Your task to perform on an android device: turn on bluetooth scan Image 0: 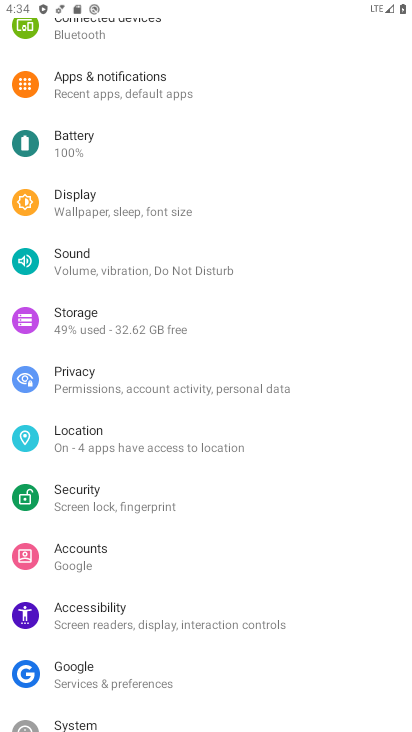
Step 0: drag from (245, 131) to (261, 530)
Your task to perform on an android device: turn on bluetooth scan Image 1: 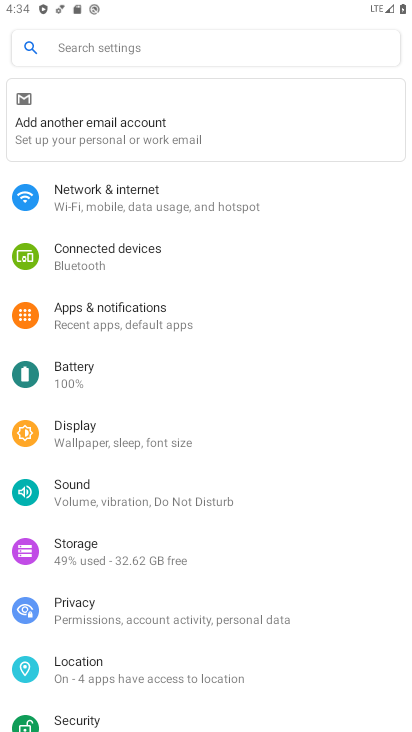
Step 1: drag from (236, 549) to (216, 121)
Your task to perform on an android device: turn on bluetooth scan Image 2: 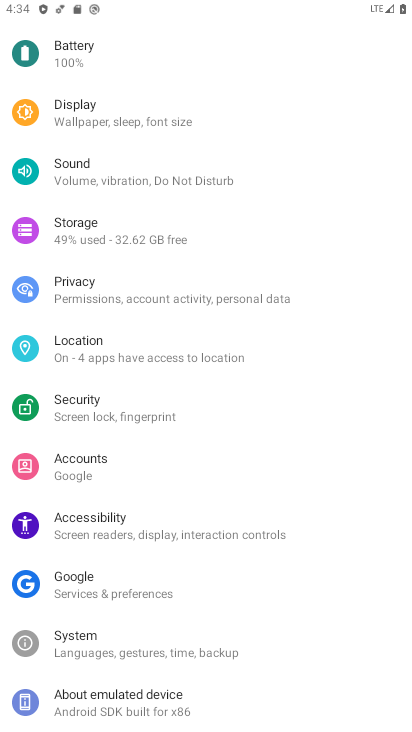
Step 2: drag from (169, 89) to (225, 570)
Your task to perform on an android device: turn on bluetooth scan Image 3: 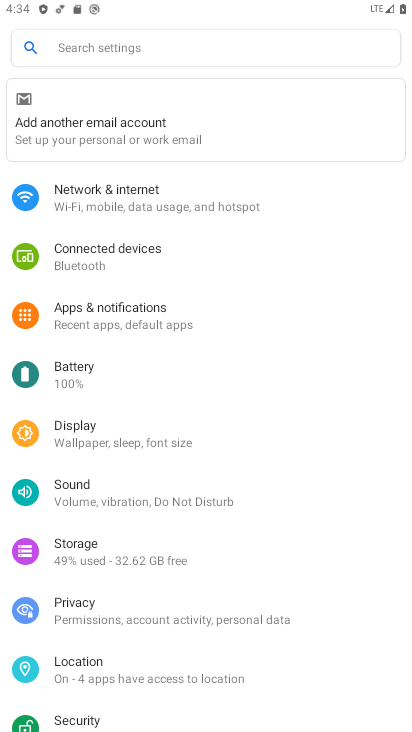
Step 3: drag from (211, 581) to (253, 278)
Your task to perform on an android device: turn on bluetooth scan Image 4: 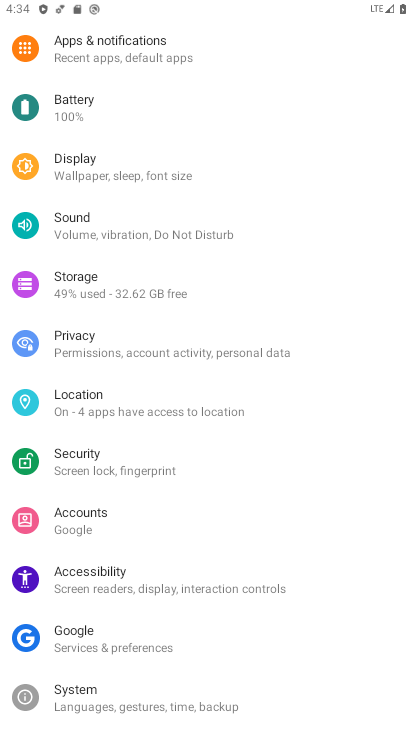
Step 4: click (162, 401)
Your task to perform on an android device: turn on bluetooth scan Image 5: 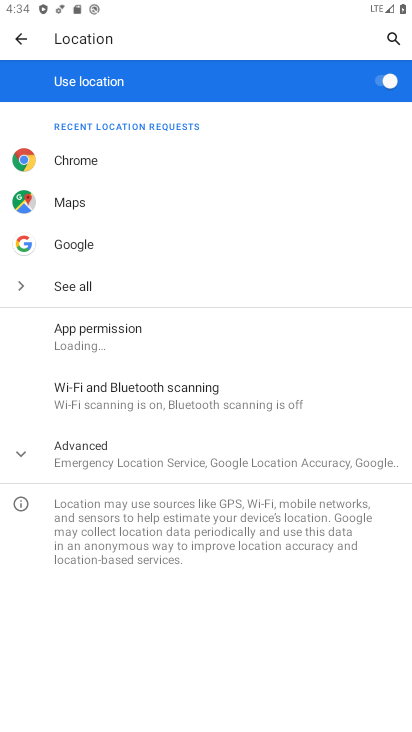
Step 5: click (164, 406)
Your task to perform on an android device: turn on bluetooth scan Image 6: 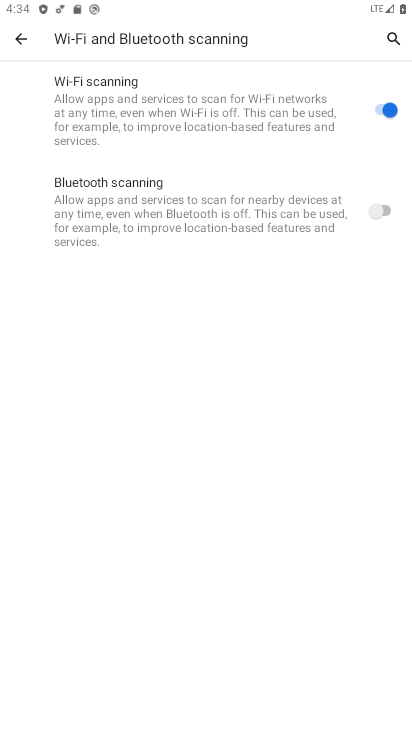
Step 6: click (382, 208)
Your task to perform on an android device: turn on bluetooth scan Image 7: 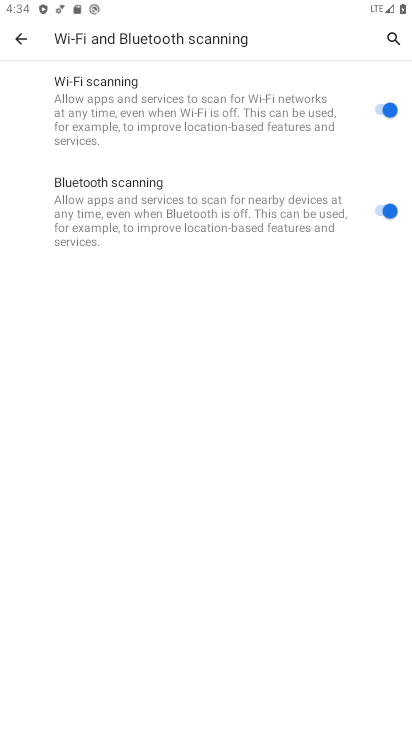
Step 7: task complete